Your task to perform on an android device: Open internet settings Image 0: 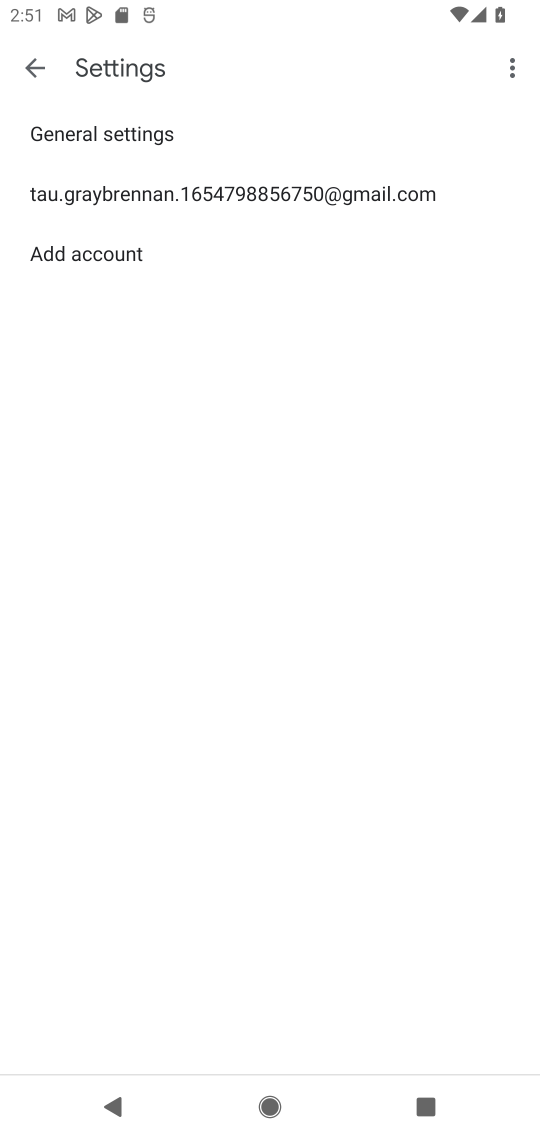
Step 0: press home button
Your task to perform on an android device: Open internet settings Image 1: 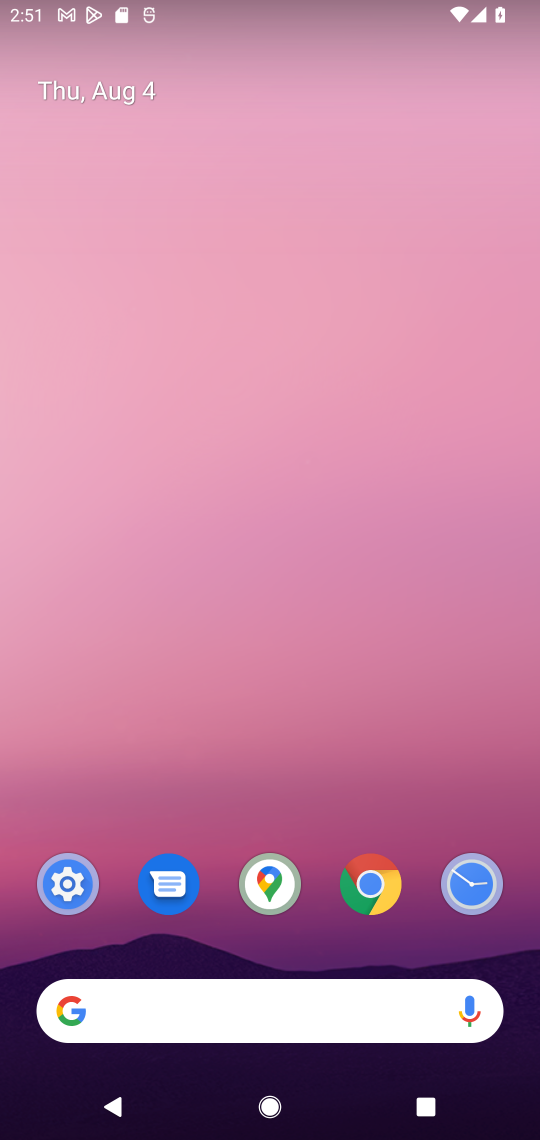
Step 1: click (86, 892)
Your task to perform on an android device: Open internet settings Image 2: 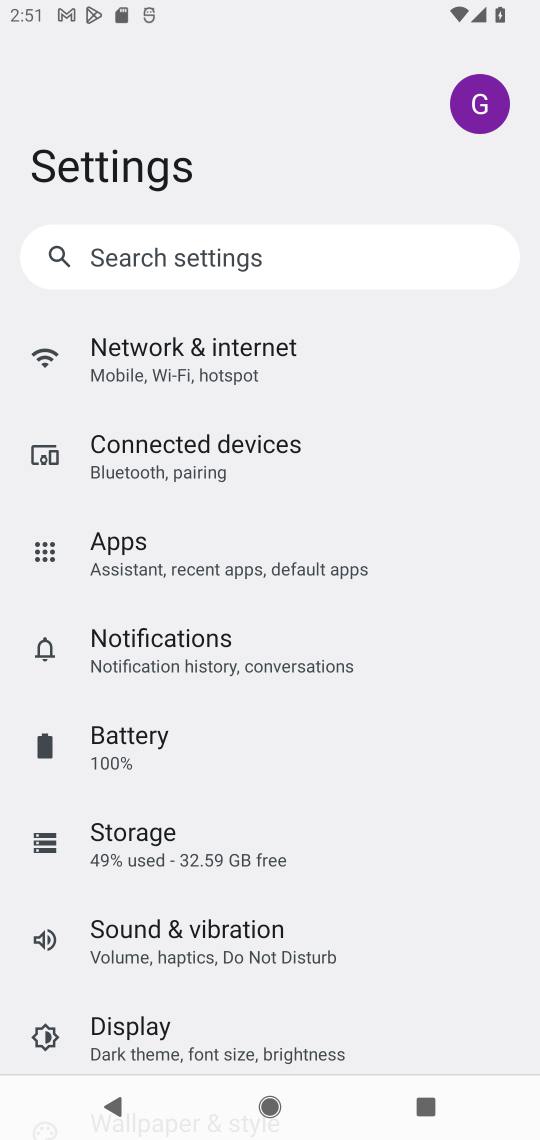
Step 2: click (179, 390)
Your task to perform on an android device: Open internet settings Image 3: 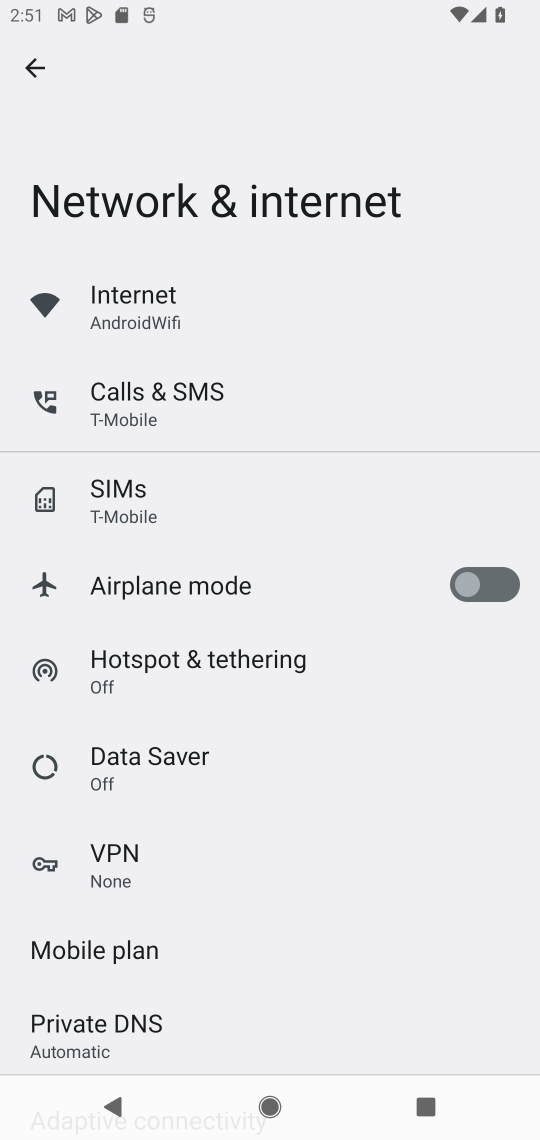
Step 3: click (109, 302)
Your task to perform on an android device: Open internet settings Image 4: 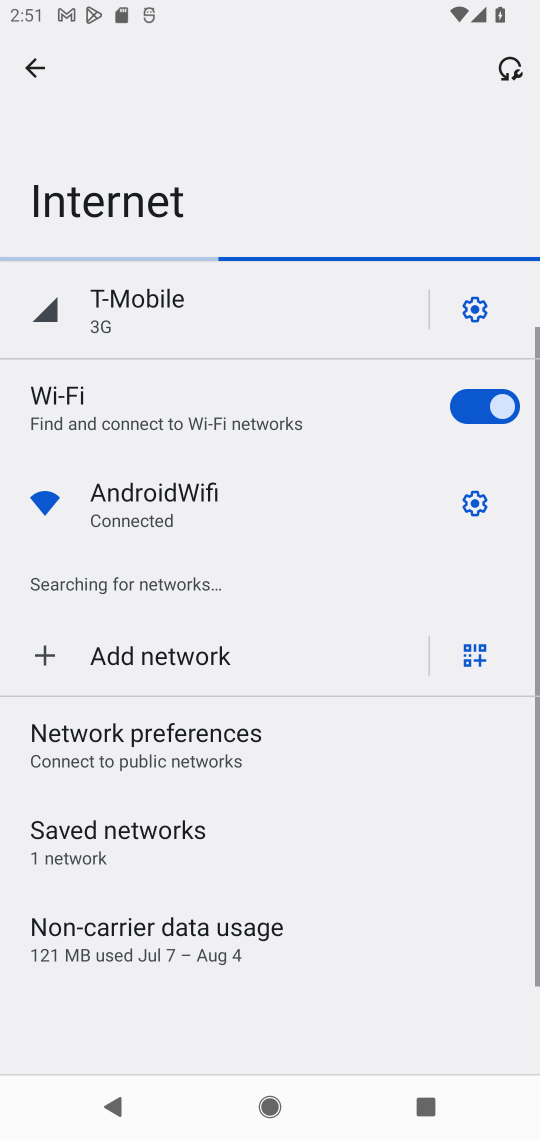
Step 4: task complete